Your task to perform on an android device: open device folders in google photos Image 0: 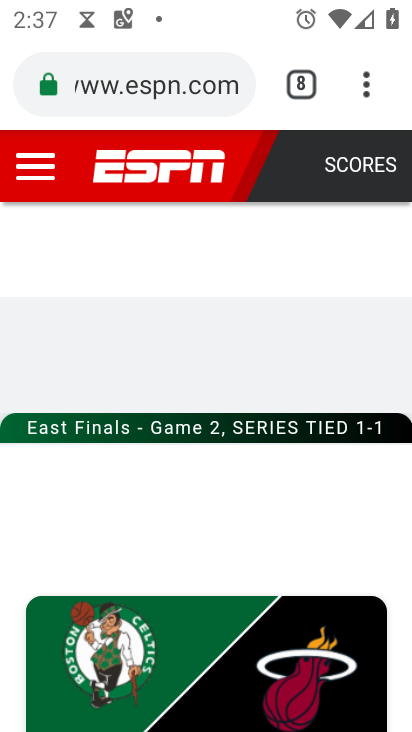
Step 0: press home button
Your task to perform on an android device: open device folders in google photos Image 1: 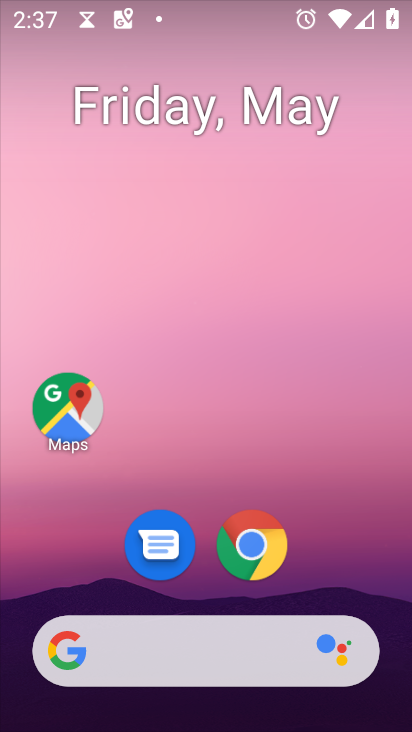
Step 1: drag from (323, 556) to (231, 171)
Your task to perform on an android device: open device folders in google photos Image 2: 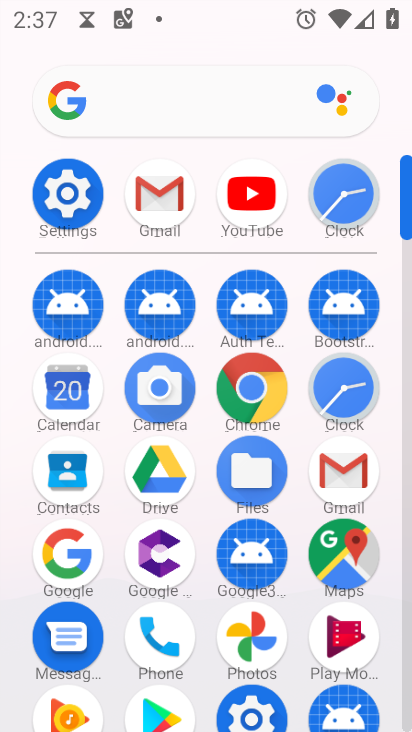
Step 2: click (255, 627)
Your task to perform on an android device: open device folders in google photos Image 3: 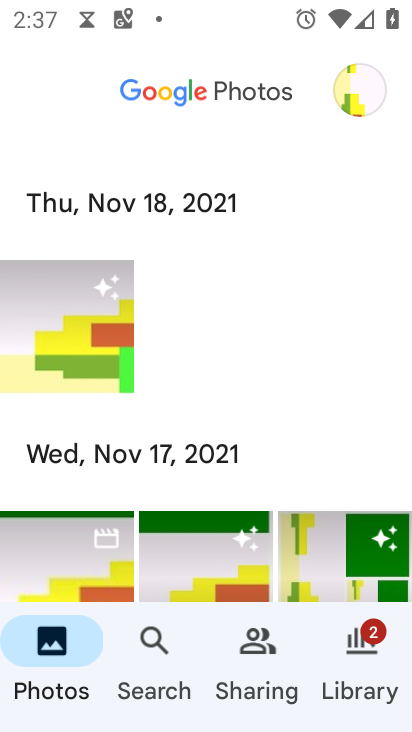
Step 3: click (370, 105)
Your task to perform on an android device: open device folders in google photos Image 4: 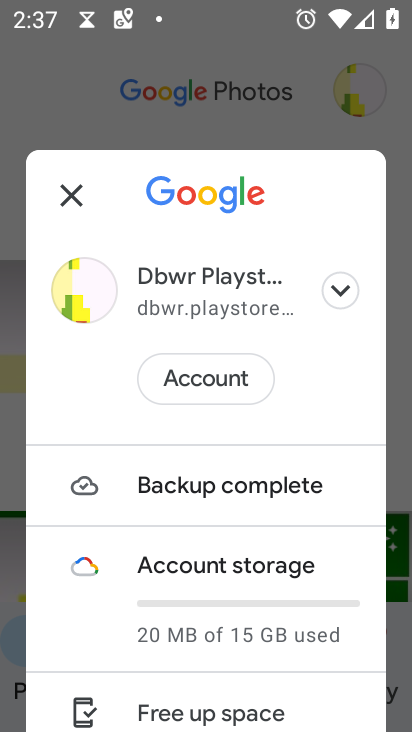
Step 4: drag from (281, 656) to (290, 413)
Your task to perform on an android device: open device folders in google photos Image 5: 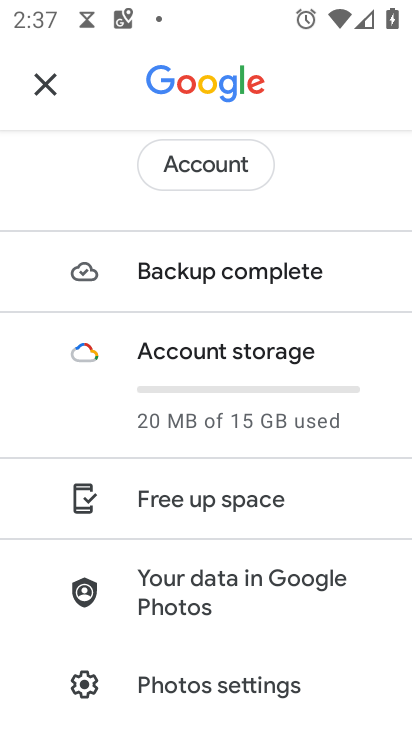
Step 5: click (255, 600)
Your task to perform on an android device: open device folders in google photos Image 6: 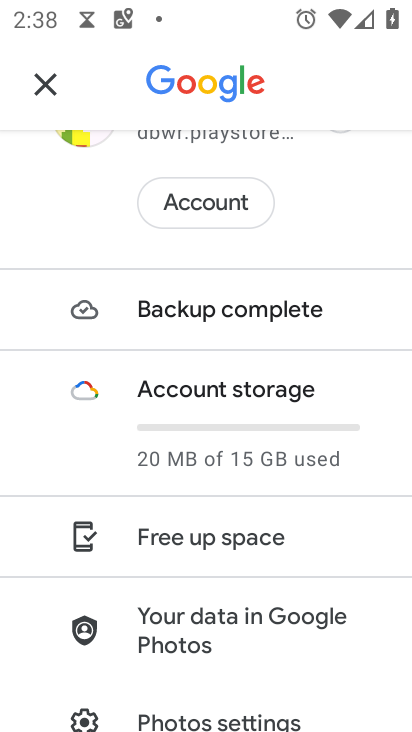
Step 6: drag from (304, 180) to (302, 405)
Your task to perform on an android device: open device folders in google photos Image 7: 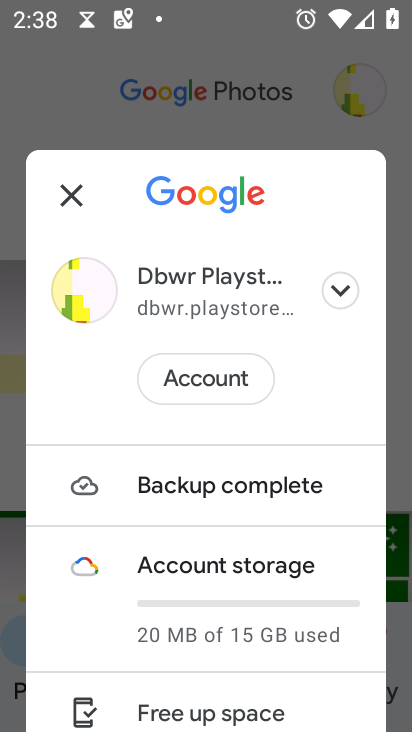
Step 7: click (335, 292)
Your task to perform on an android device: open device folders in google photos Image 8: 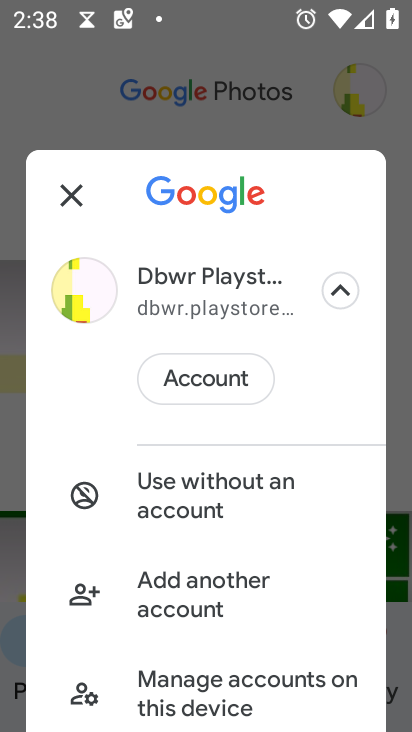
Step 8: drag from (279, 626) to (312, 385)
Your task to perform on an android device: open device folders in google photos Image 9: 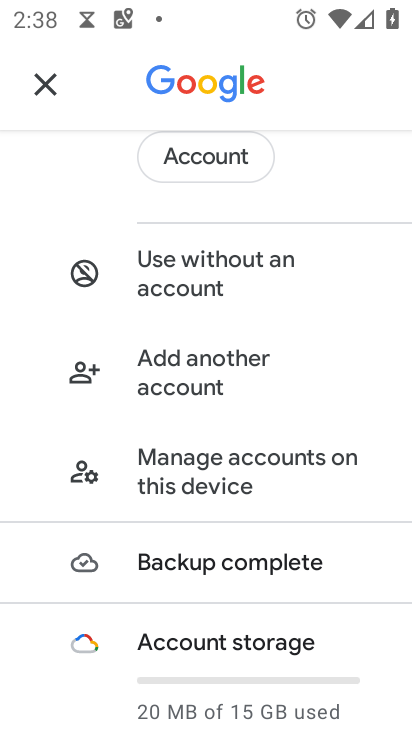
Step 9: drag from (342, 616) to (341, 447)
Your task to perform on an android device: open device folders in google photos Image 10: 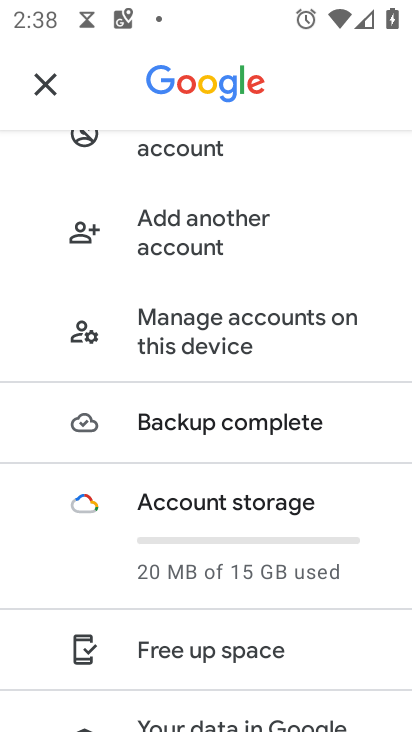
Step 10: click (45, 83)
Your task to perform on an android device: open device folders in google photos Image 11: 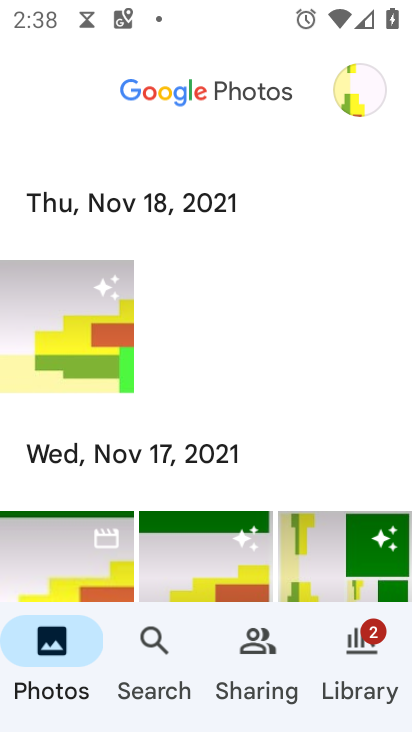
Step 11: click (153, 650)
Your task to perform on an android device: open device folders in google photos Image 12: 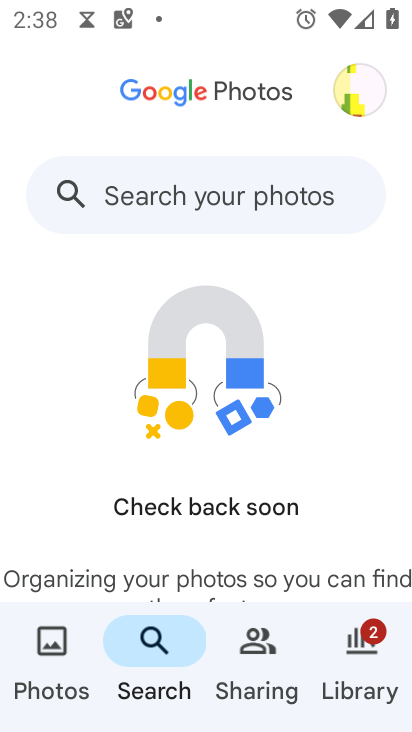
Step 12: click (253, 196)
Your task to perform on an android device: open device folders in google photos Image 13: 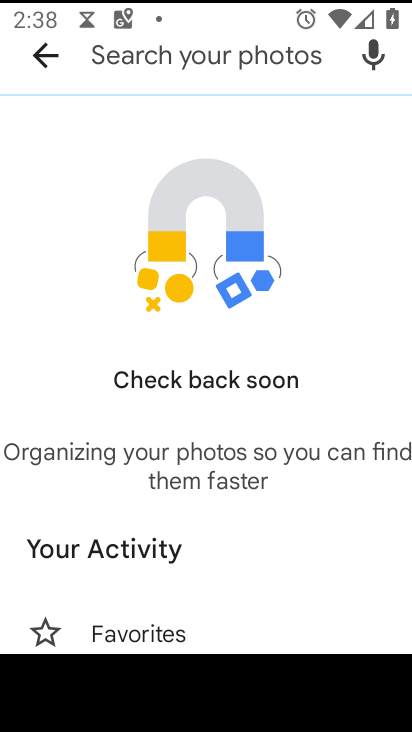
Step 13: type "device folders"
Your task to perform on an android device: open device folders in google photos Image 14: 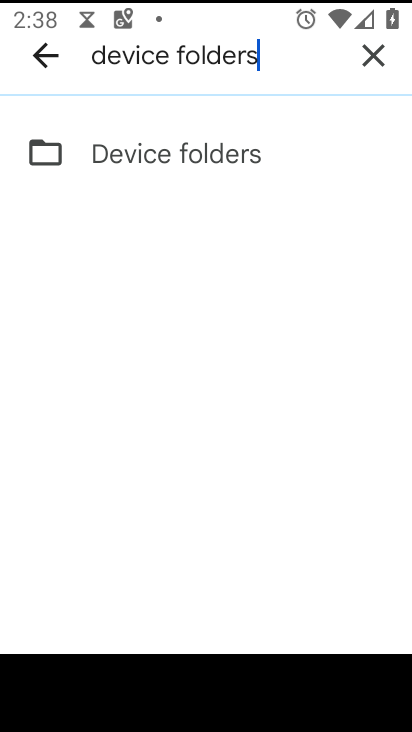
Step 14: click (237, 151)
Your task to perform on an android device: open device folders in google photos Image 15: 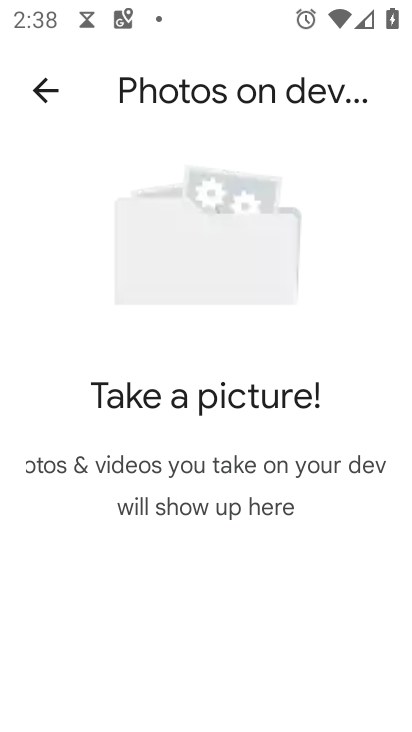
Step 15: task complete